Your task to perform on an android device: set an alarm Image 0: 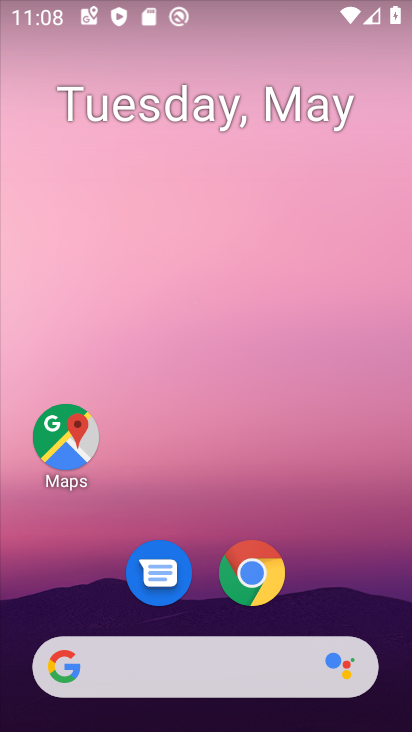
Step 0: drag from (279, 701) to (261, 119)
Your task to perform on an android device: set an alarm Image 1: 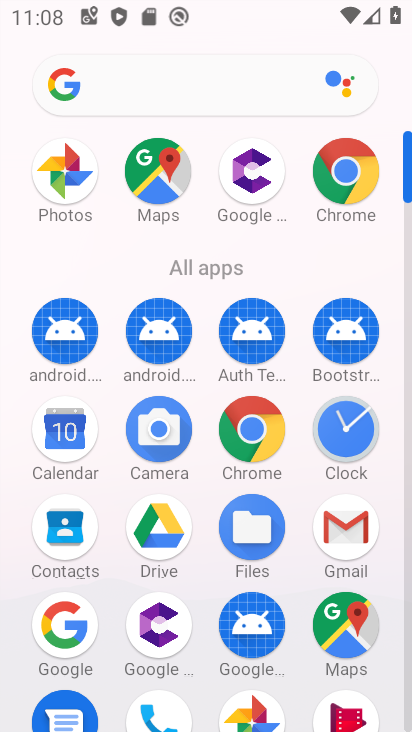
Step 1: click (331, 431)
Your task to perform on an android device: set an alarm Image 2: 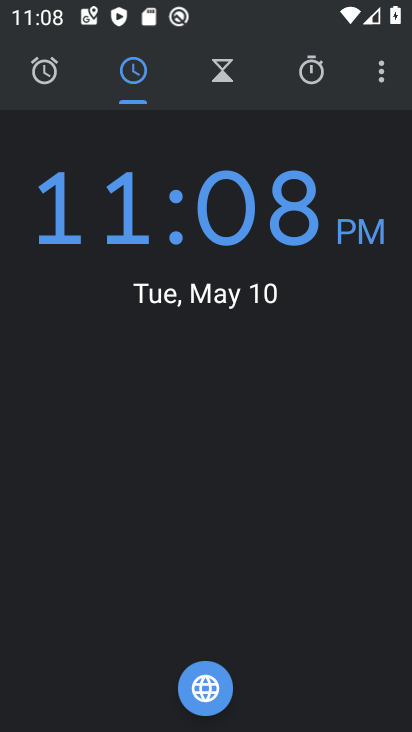
Step 2: click (42, 79)
Your task to perform on an android device: set an alarm Image 3: 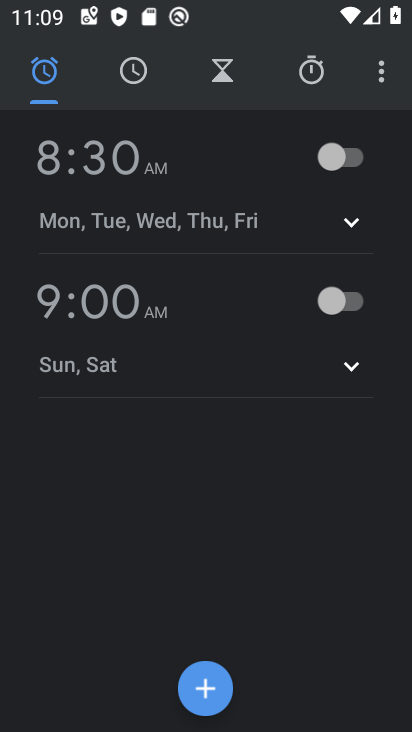
Step 3: click (338, 145)
Your task to perform on an android device: set an alarm Image 4: 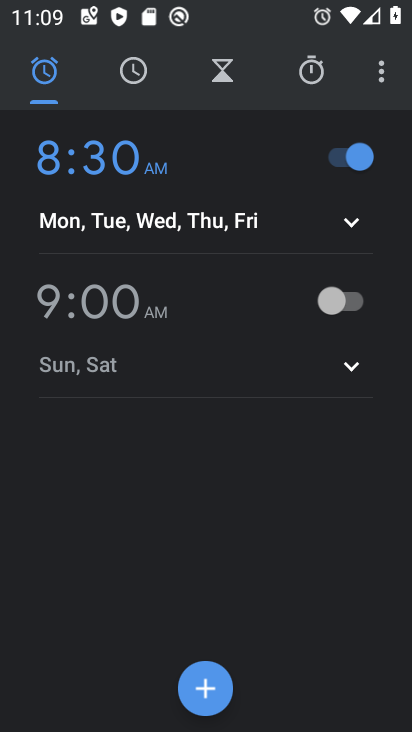
Step 4: task complete